Your task to perform on an android device: turn on translation in the chrome app Image 0: 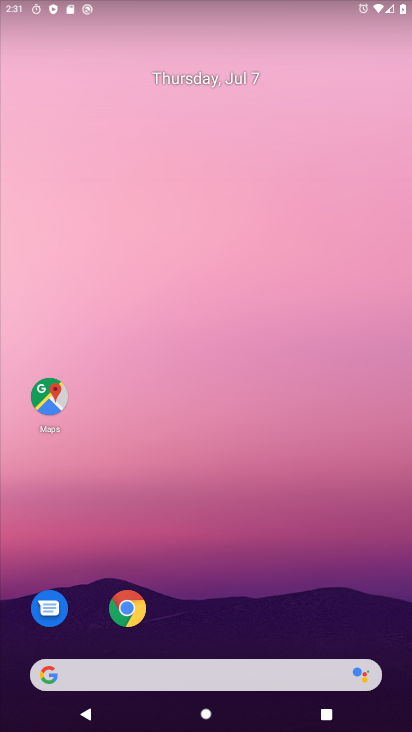
Step 0: click (131, 607)
Your task to perform on an android device: turn on translation in the chrome app Image 1: 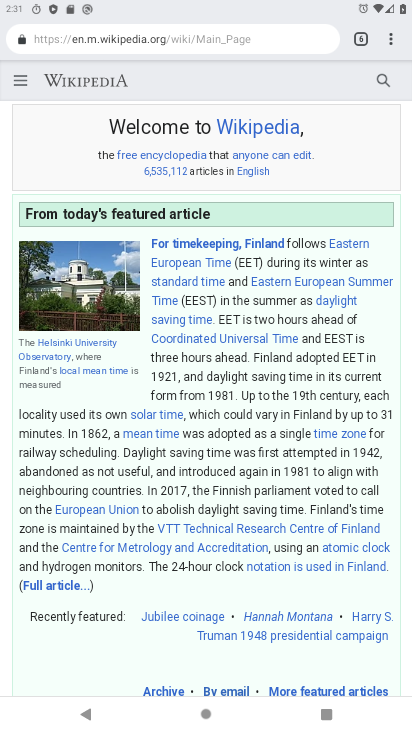
Step 1: click (391, 44)
Your task to perform on an android device: turn on translation in the chrome app Image 2: 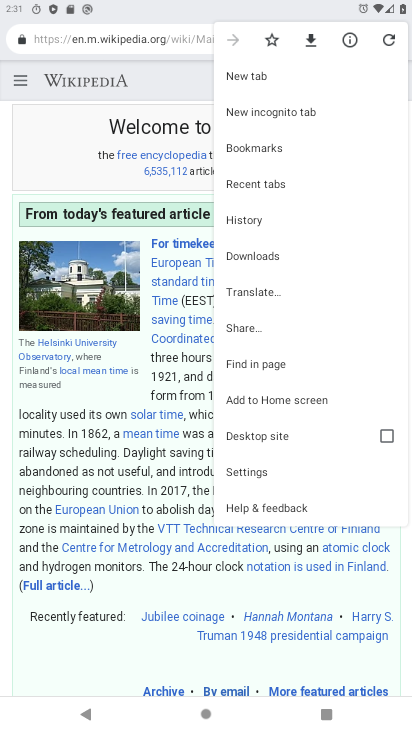
Step 2: click (250, 471)
Your task to perform on an android device: turn on translation in the chrome app Image 3: 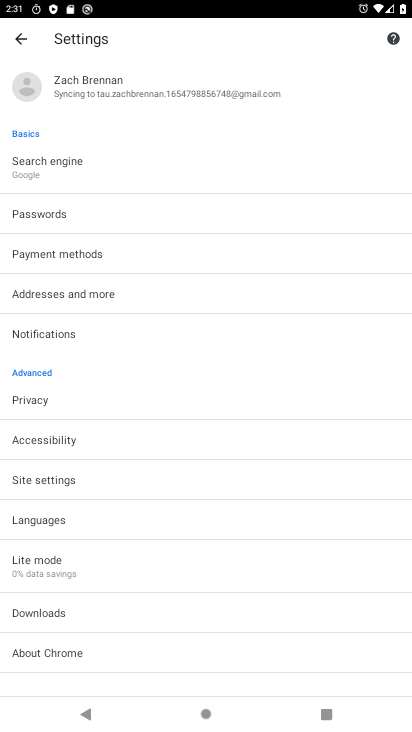
Step 3: click (39, 517)
Your task to perform on an android device: turn on translation in the chrome app Image 4: 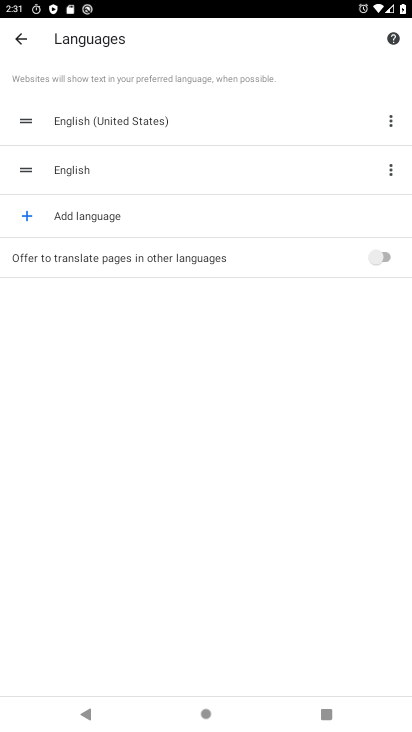
Step 4: click (391, 254)
Your task to perform on an android device: turn on translation in the chrome app Image 5: 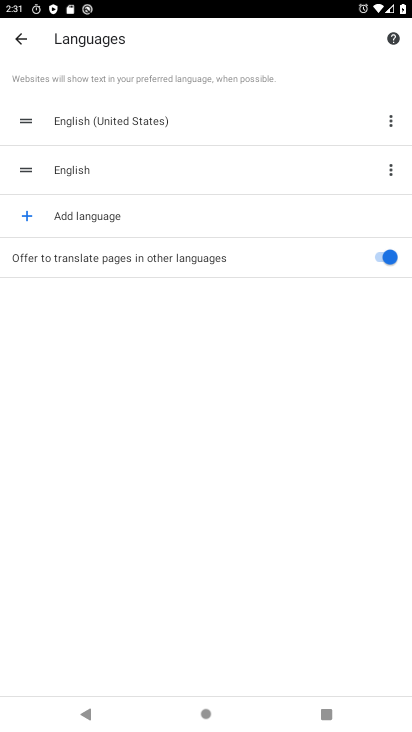
Step 5: task complete